Your task to perform on an android device: Go to display settings Image 0: 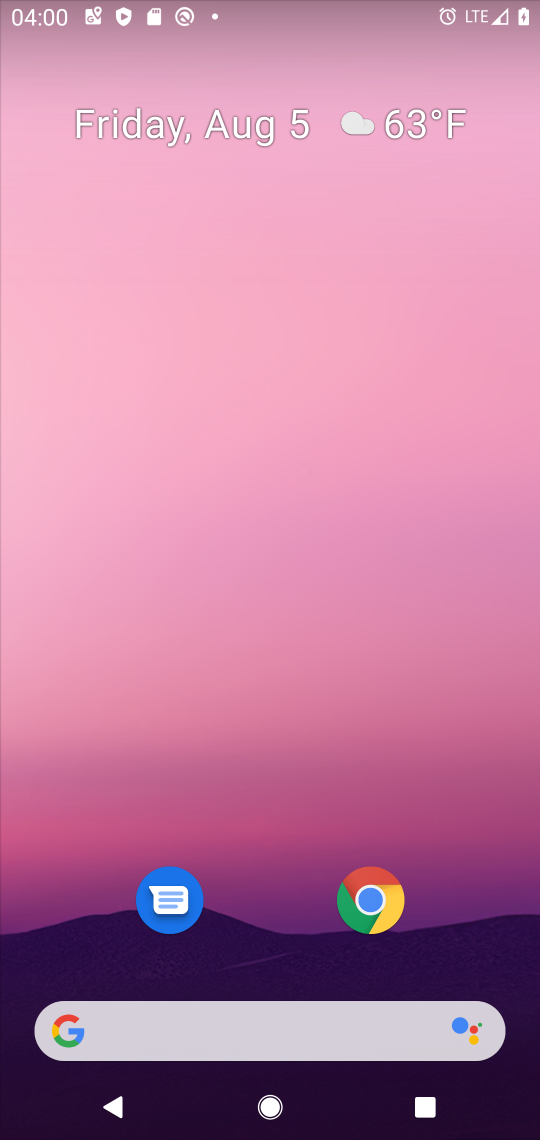
Step 0: drag from (224, 968) to (405, 10)
Your task to perform on an android device: Go to display settings Image 1: 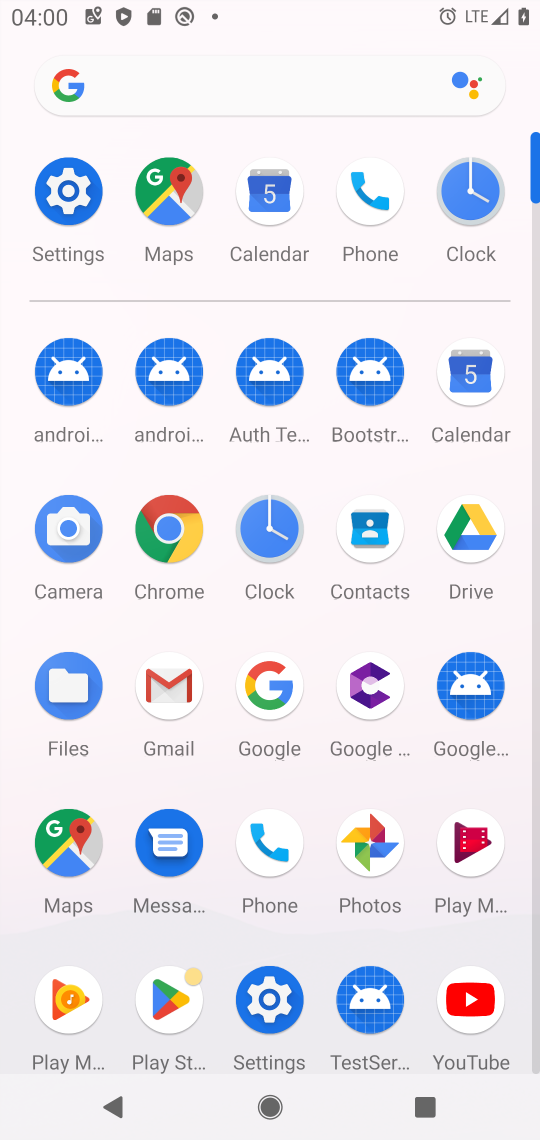
Step 1: click (61, 177)
Your task to perform on an android device: Go to display settings Image 2: 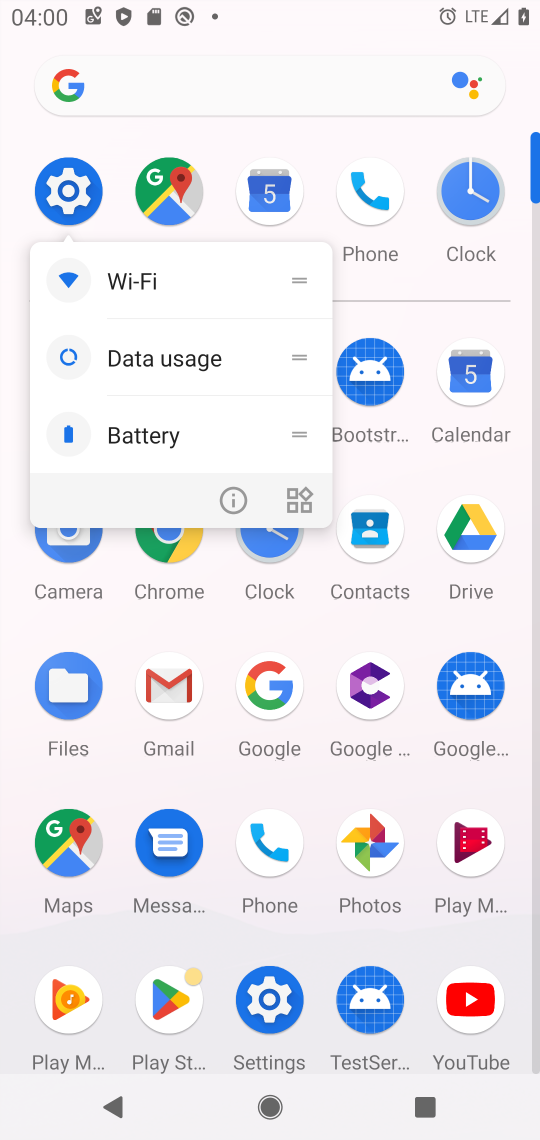
Step 2: click (73, 203)
Your task to perform on an android device: Go to display settings Image 3: 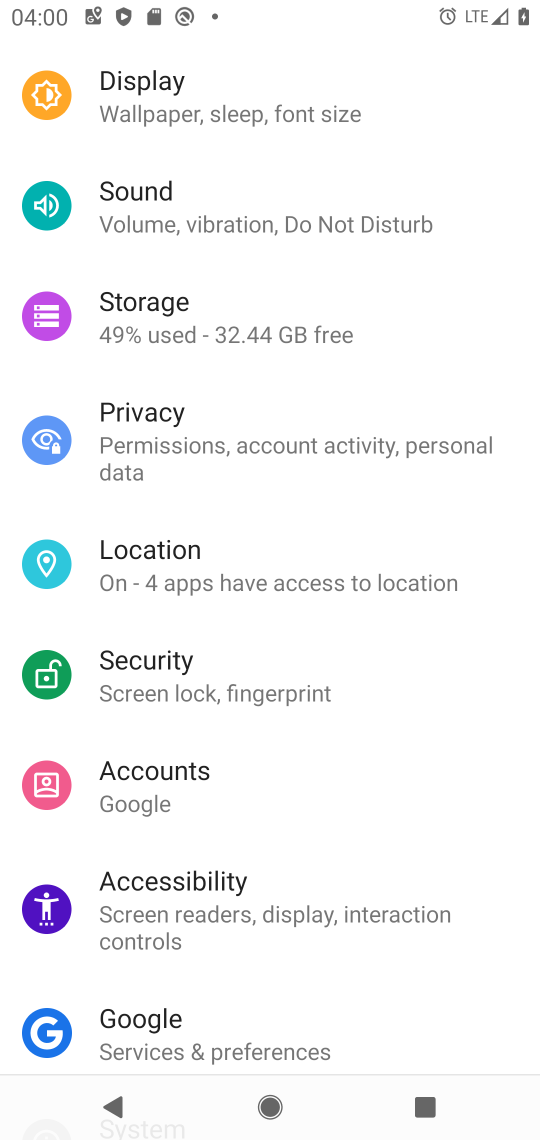
Step 3: click (191, 103)
Your task to perform on an android device: Go to display settings Image 4: 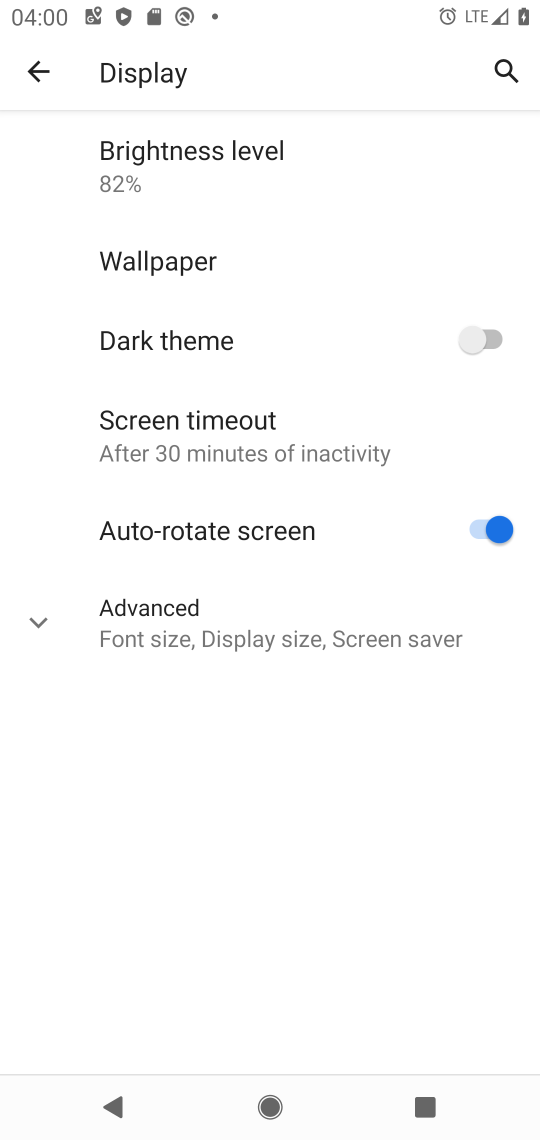
Step 4: task complete